Your task to perform on an android device: Open internet settings Image 0: 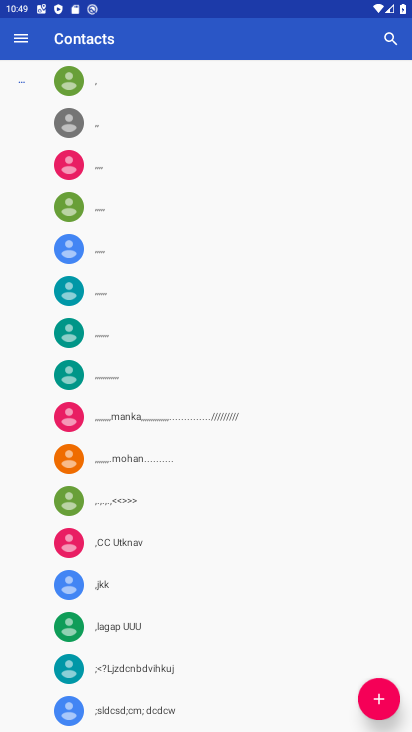
Step 0: press home button
Your task to perform on an android device: Open internet settings Image 1: 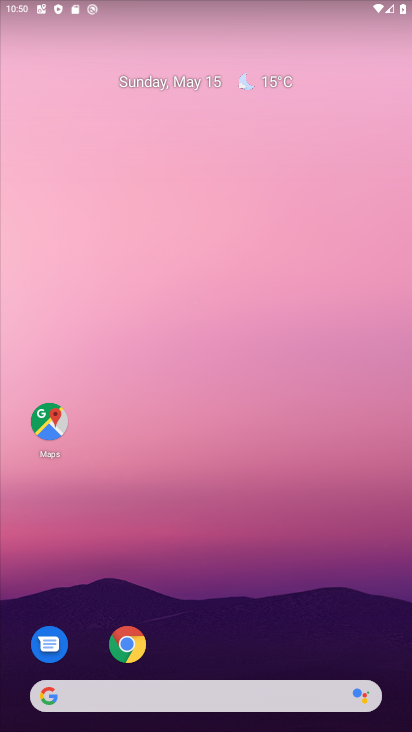
Step 1: drag from (299, 626) to (290, 12)
Your task to perform on an android device: Open internet settings Image 2: 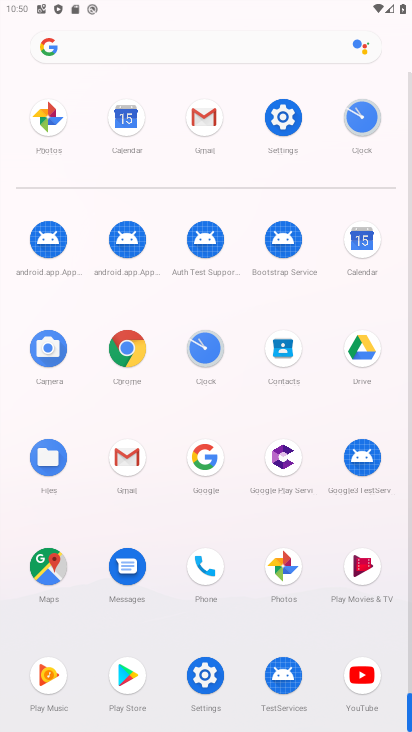
Step 2: click (282, 117)
Your task to perform on an android device: Open internet settings Image 3: 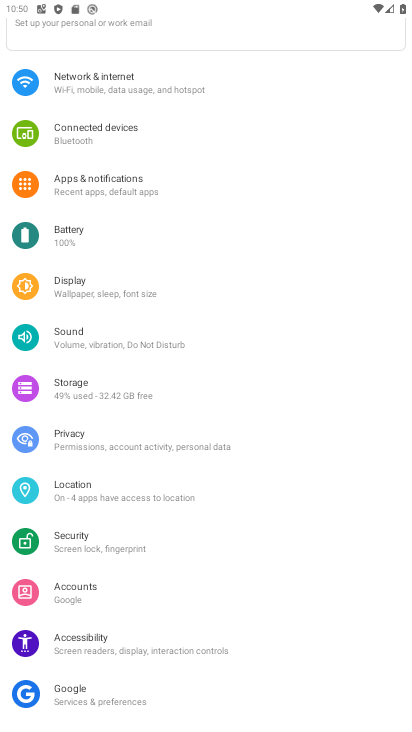
Step 3: click (124, 85)
Your task to perform on an android device: Open internet settings Image 4: 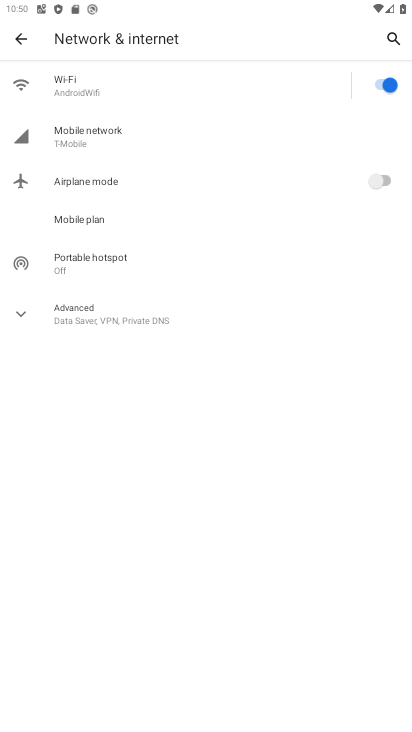
Step 4: task complete